Your task to perform on an android device: Find coffee shops on Maps Image 0: 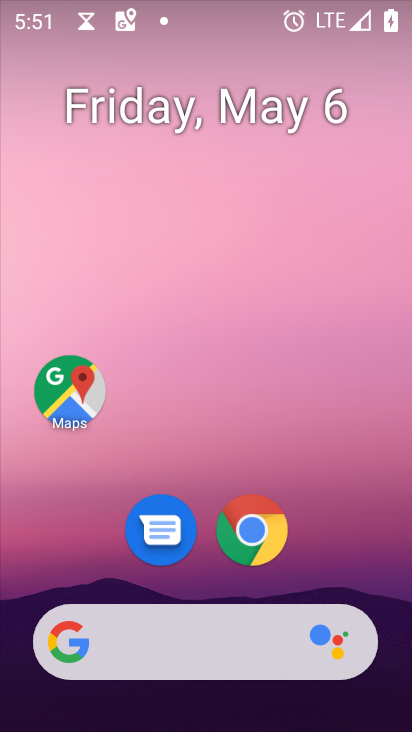
Step 0: click (60, 393)
Your task to perform on an android device: Find coffee shops on Maps Image 1: 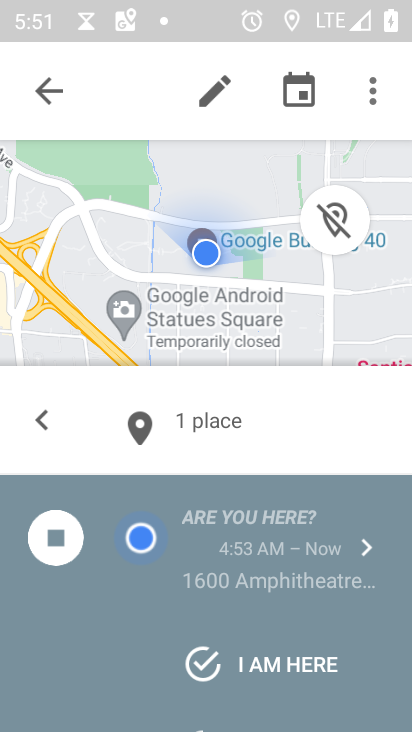
Step 1: click (59, 95)
Your task to perform on an android device: Find coffee shops on Maps Image 2: 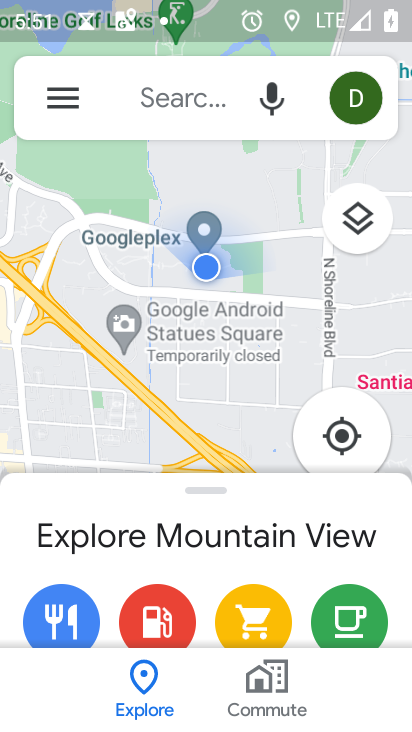
Step 2: click (180, 101)
Your task to perform on an android device: Find coffee shops on Maps Image 3: 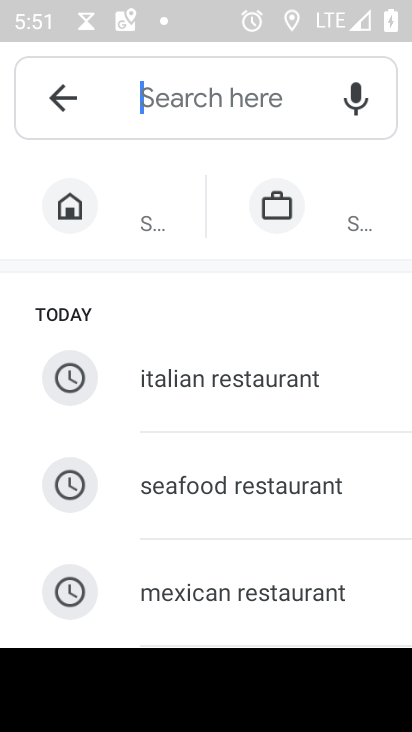
Step 3: type "coffee shosps"
Your task to perform on an android device: Find coffee shops on Maps Image 4: 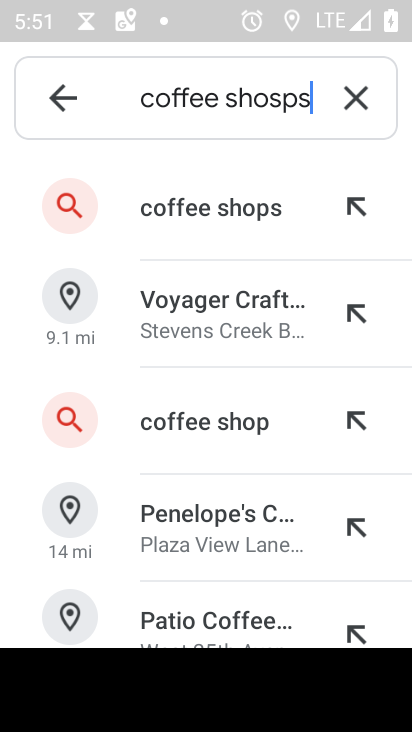
Step 4: click (201, 228)
Your task to perform on an android device: Find coffee shops on Maps Image 5: 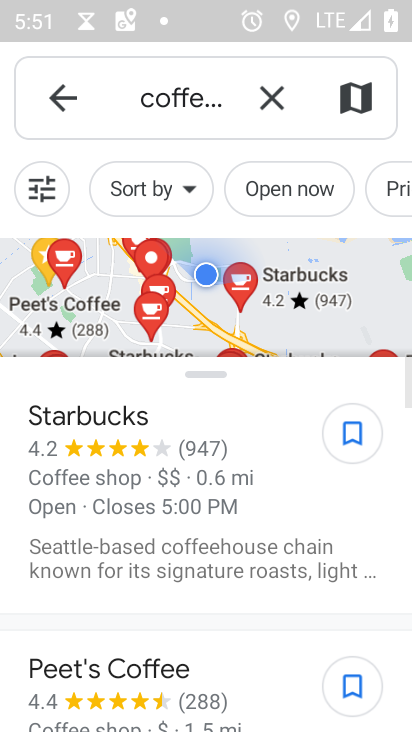
Step 5: task complete